Your task to perform on an android device: Go to Google Image 0: 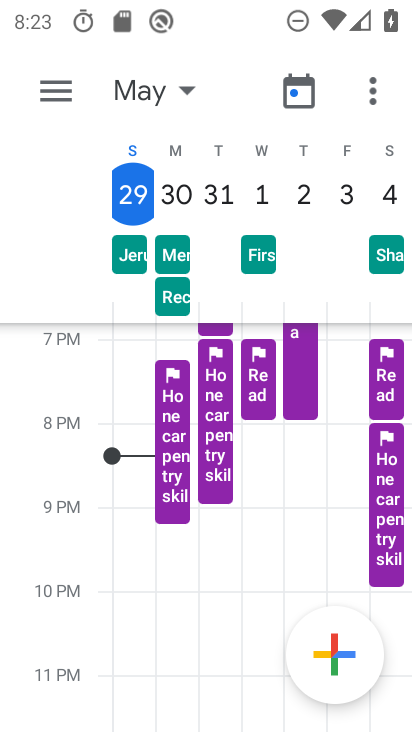
Step 0: press home button
Your task to perform on an android device: Go to Google Image 1: 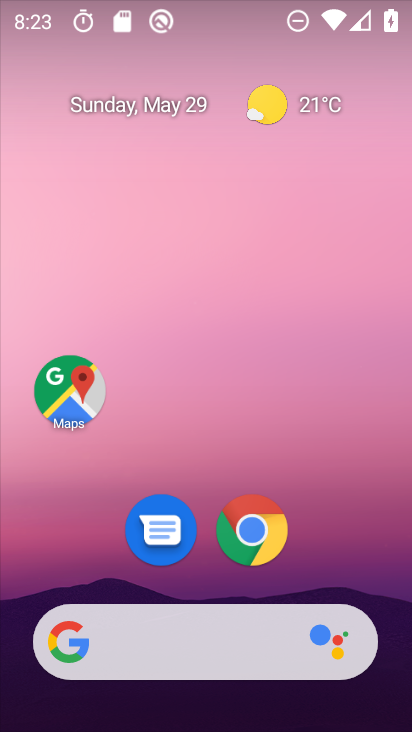
Step 1: drag from (286, 660) to (330, 196)
Your task to perform on an android device: Go to Google Image 2: 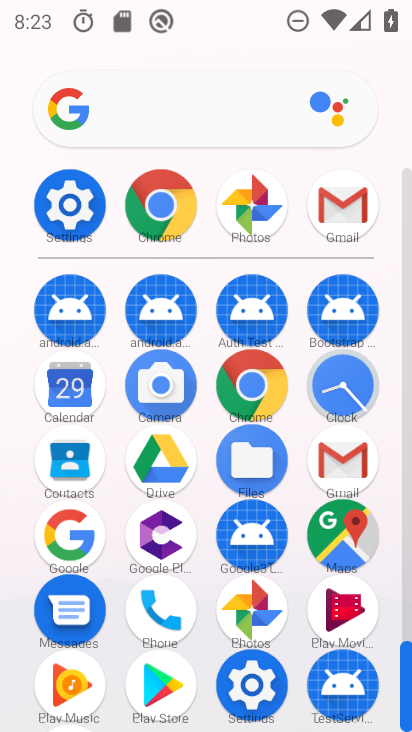
Step 2: click (63, 105)
Your task to perform on an android device: Go to Google Image 3: 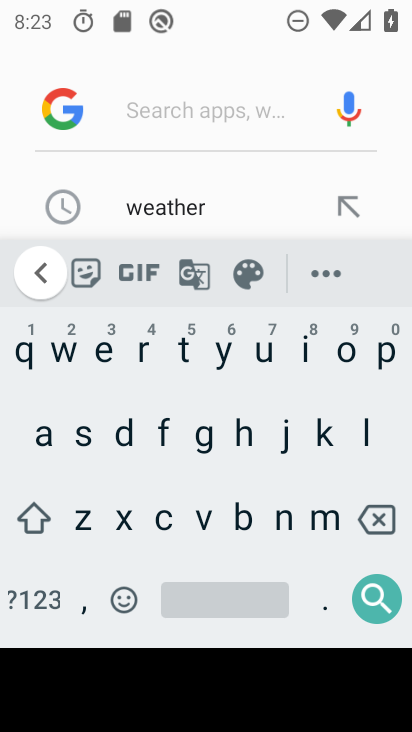
Step 3: click (66, 109)
Your task to perform on an android device: Go to Google Image 4: 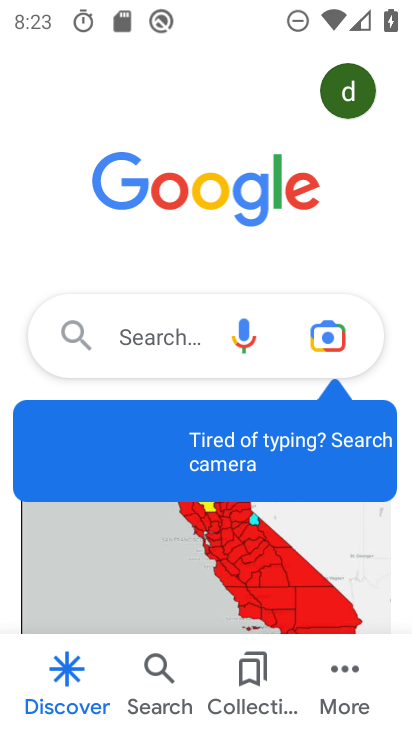
Step 4: task complete